Your task to perform on an android device: What's on my calendar tomorrow? Image 0: 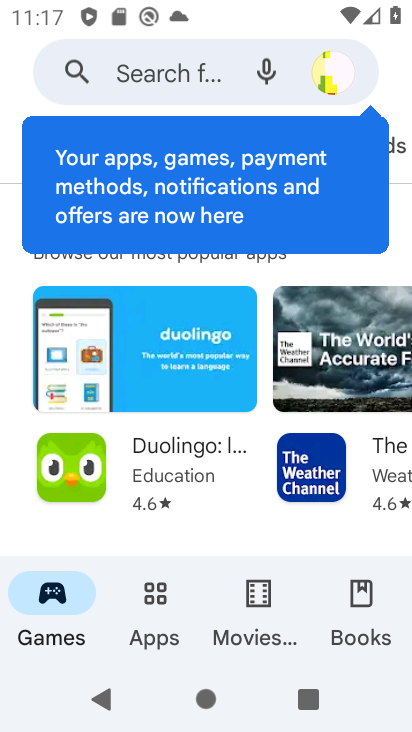
Step 0: press home button
Your task to perform on an android device: What's on my calendar tomorrow? Image 1: 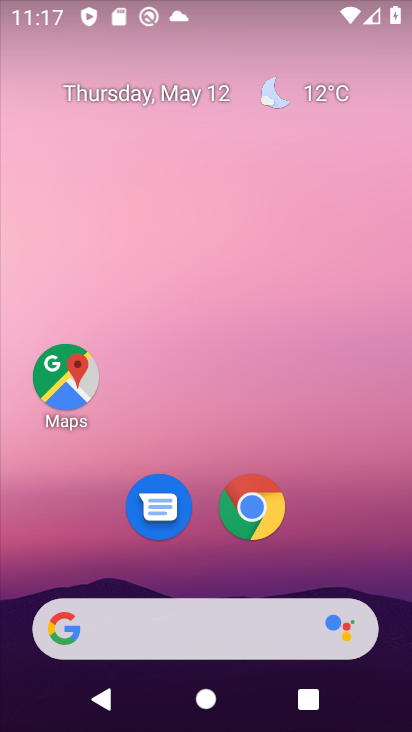
Step 1: drag from (216, 571) to (70, 4)
Your task to perform on an android device: What's on my calendar tomorrow? Image 2: 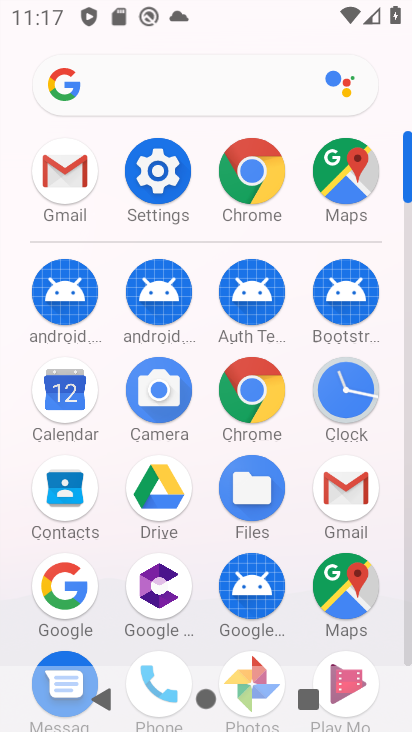
Step 2: click (50, 402)
Your task to perform on an android device: What's on my calendar tomorrow? Image 3: 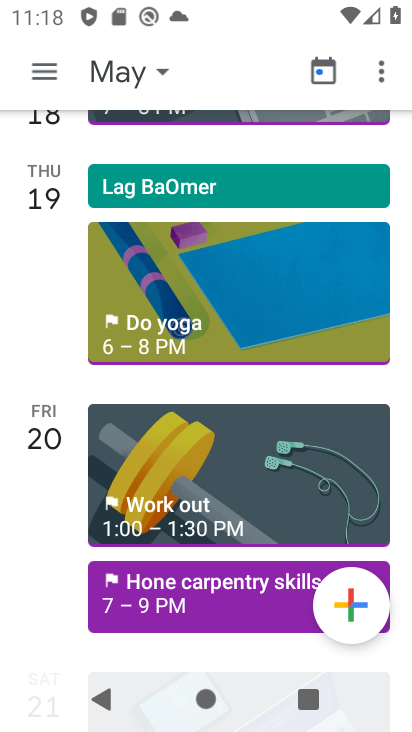
Step 3: click (57, 68)
Your task to perform on an android device: What's on my calendar tomorrow? Image 4: 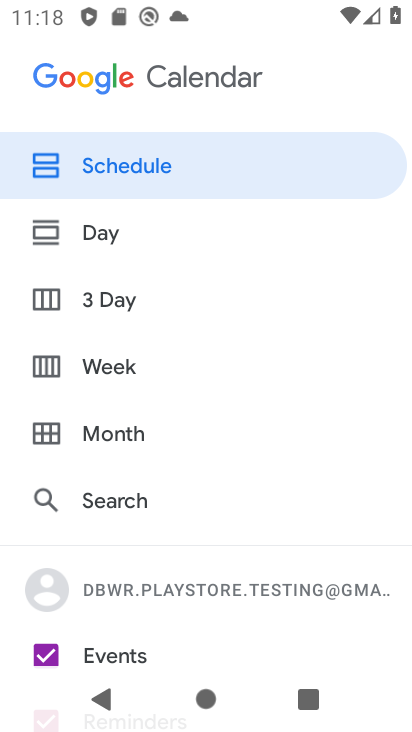
Step 4: click (107, 310)
Your task to perform on an android device: What's on my calendar tomorrow? Image 5: 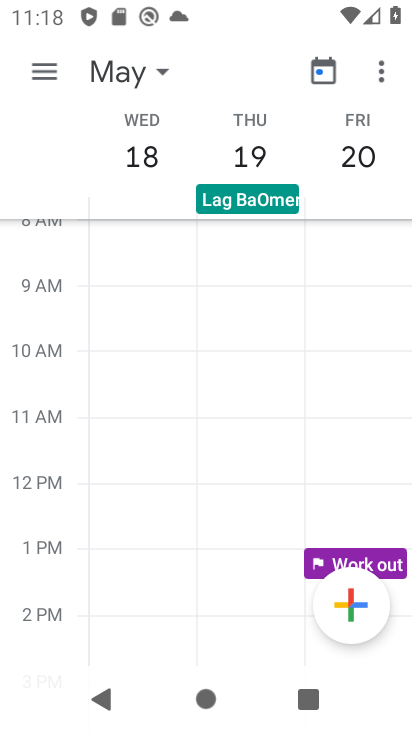
Step 5: task complete